Your task to perform on an android device: Add "asus zenbook" to the cart on walmart.com Image 0: 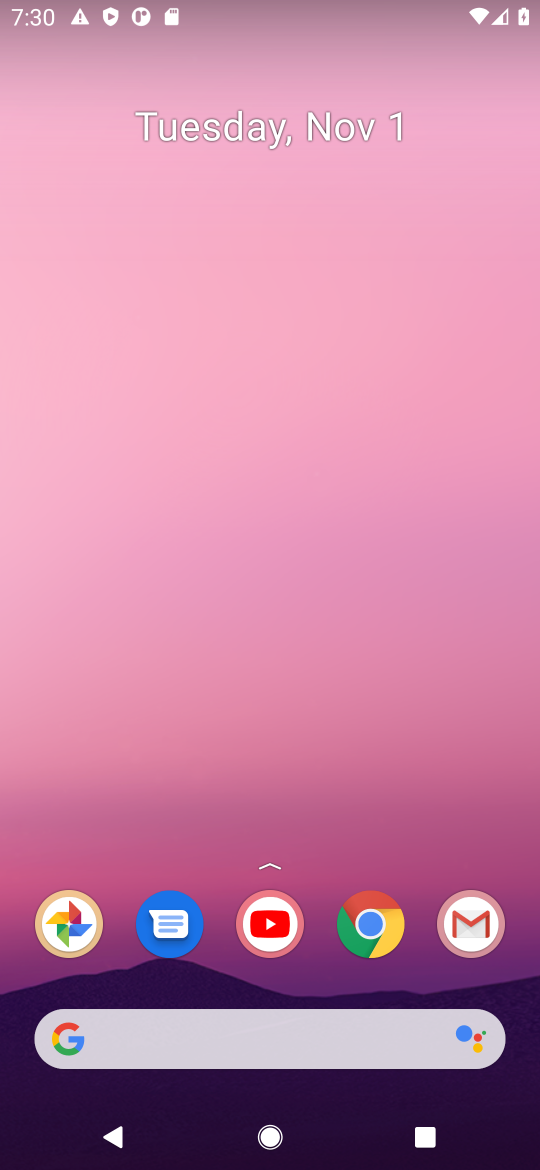
Step 0: press home button
Your task to perform on an android device: Add "asus zenbook" to the cart on walmart.com Image 1: 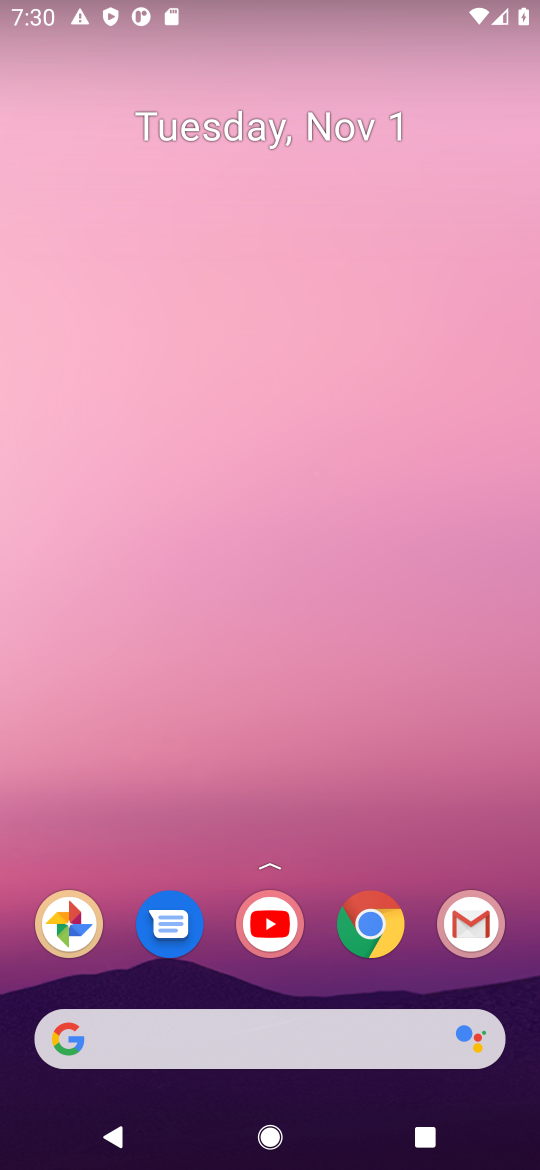
Step 1: click (98, 1031)
Your task to perform on an android device: Add "asus zenbook" to the cart on walmart.com Image 2: 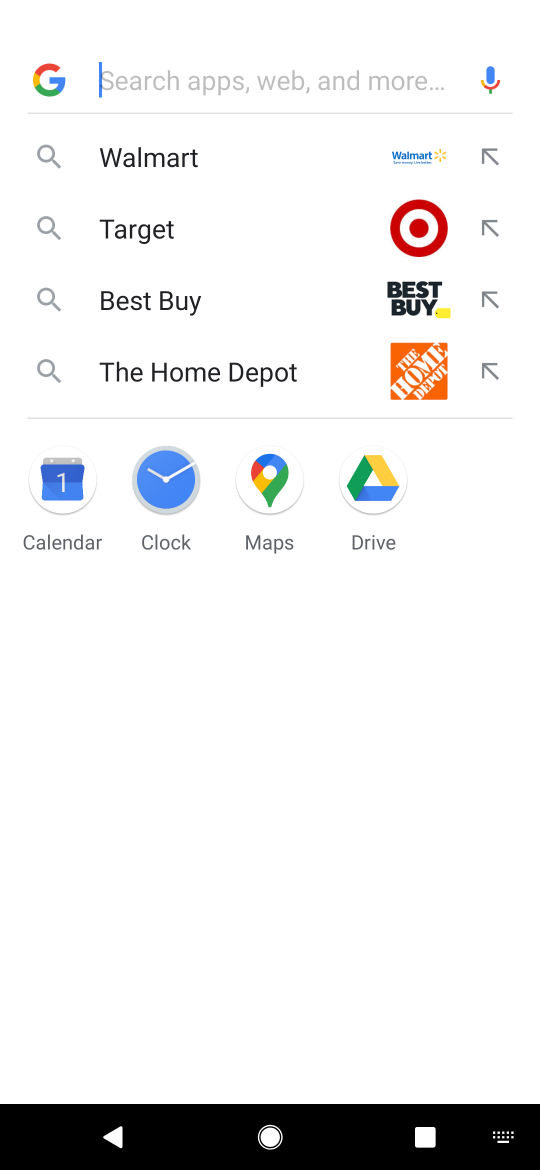
Step 2: click (169, 153)
Your task to perform on an android device: Add "asus zenbook" to the cart on walmart.com Image 3: 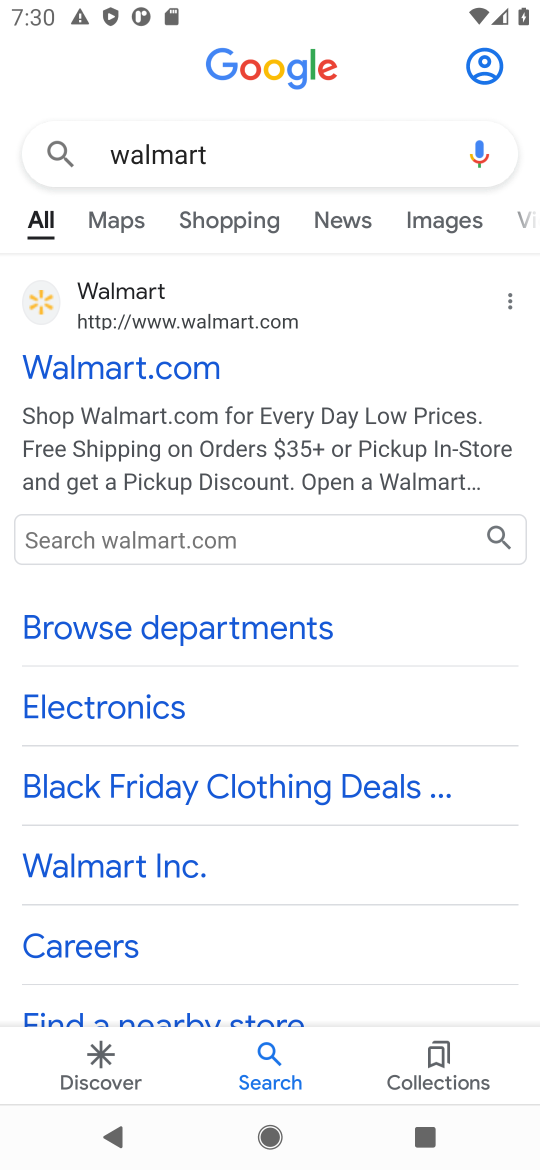
Step 3: click (101, 360)
Your task to perform on an android device: Add "asus zenbook" to the cart on walmart.com Image 4: 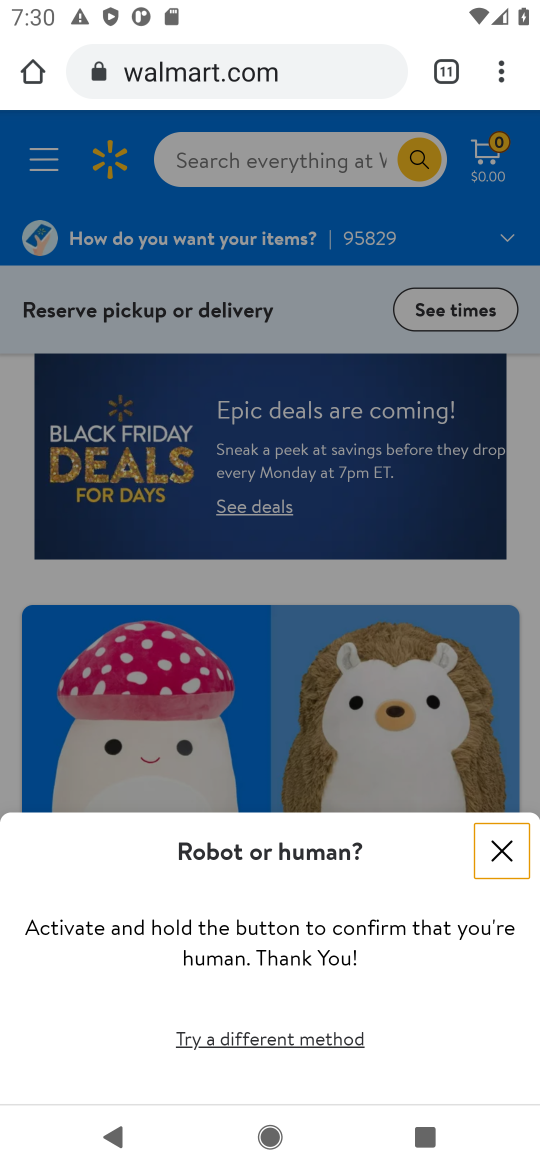
Step 4: click (518, 850)
Your task to perform on an android device: Add "asus zenbook" to the cart on walmart.com Image 5: 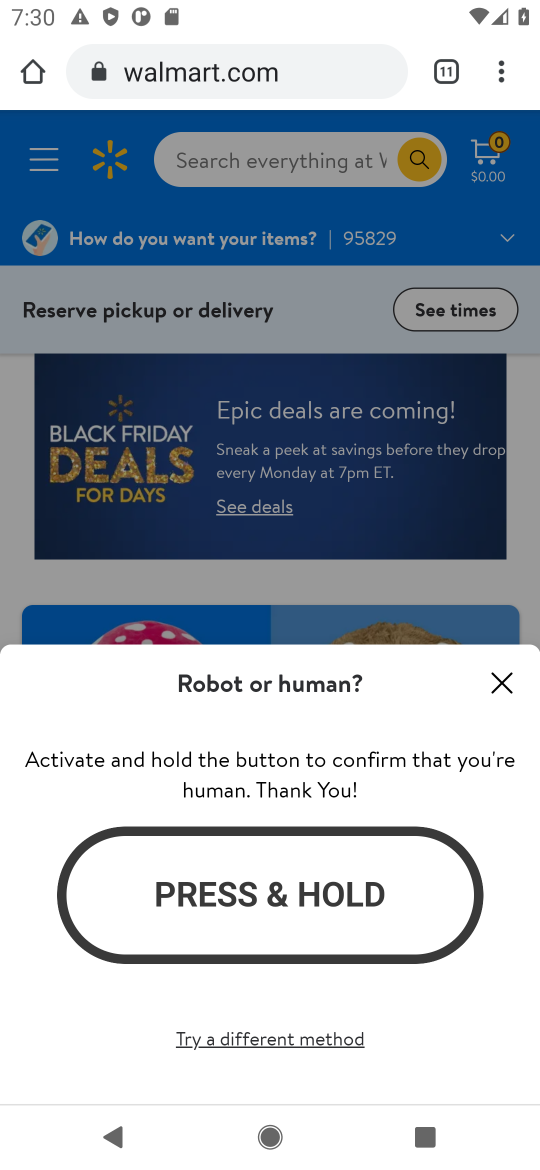
Step 5: click (254, 912)
Your task to perform on an android device: Add "asus zenbook" to the cart on walmart.com Image 6: 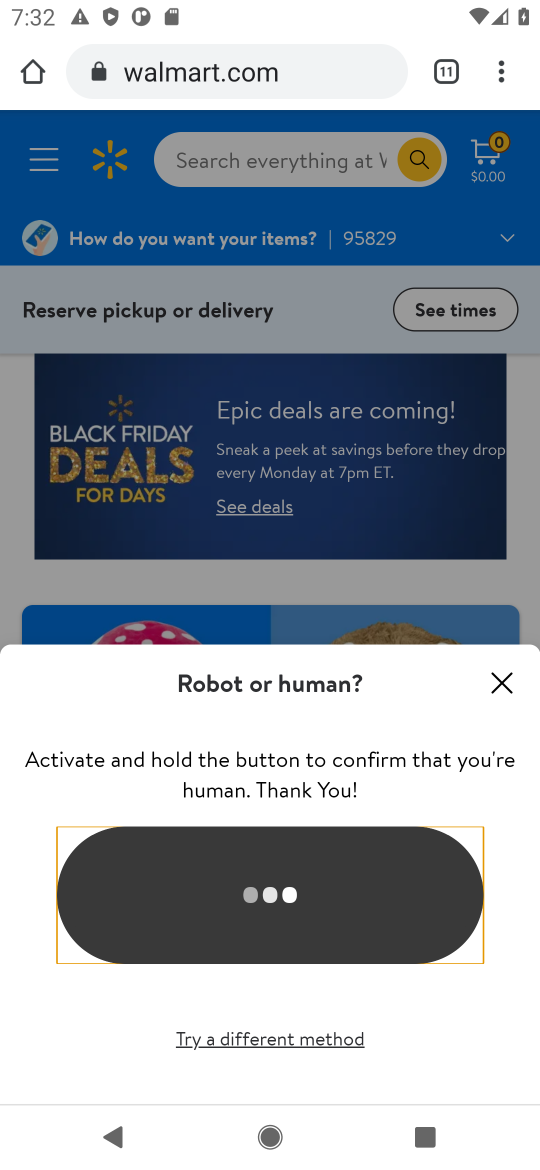
Step 6: task complete